Your task to perform on an android device: Go to network settings Image 0: 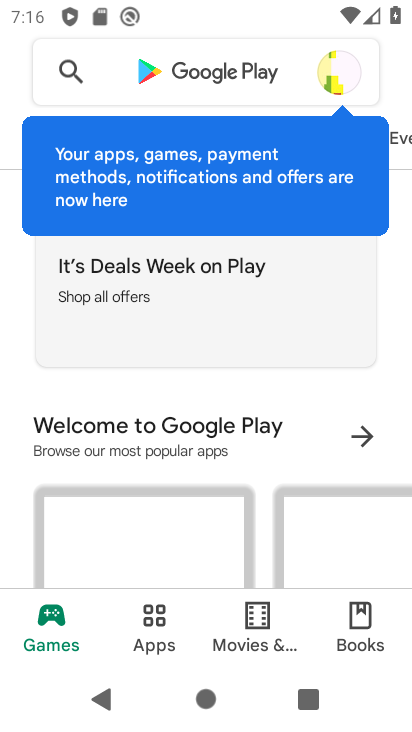
Step 0: press home button
Your task to perform on an android device: Go to network settings Image 1: 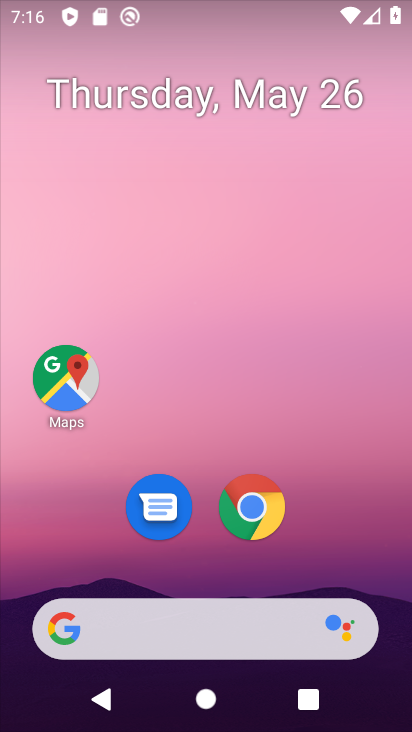
Step 1: drag from (222, 554) to (287, 2)
Your task to perform on an android device: Go to network settings Image 2: 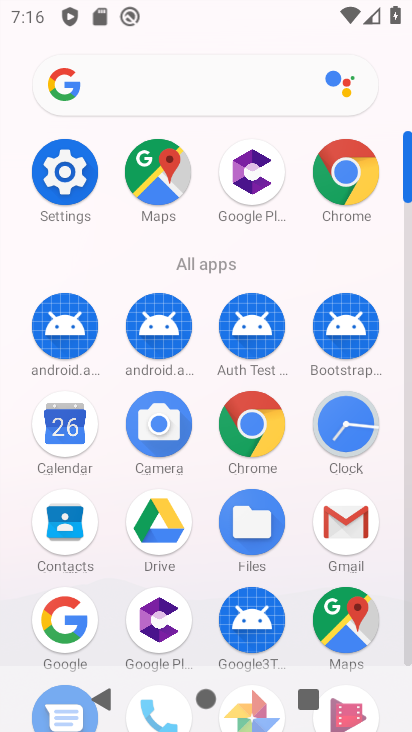
Step 2: click (67, 175)
Your task to perform on an android device: Go to network settings Image 3: 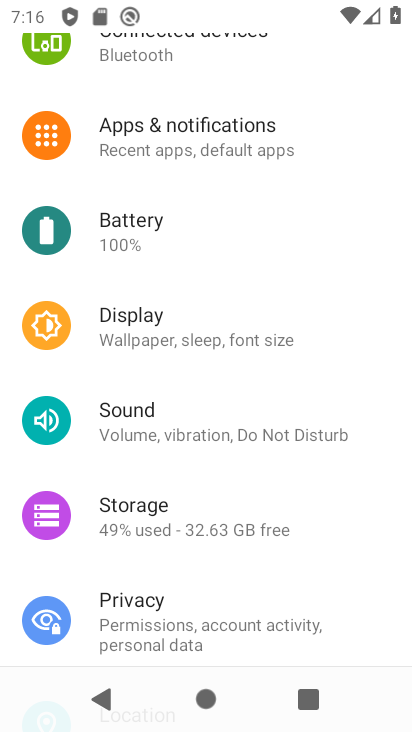
Step 3: drag from (174, 588) to (281, 234)
Your task to perform on an android device: Go to network settings Image 4: 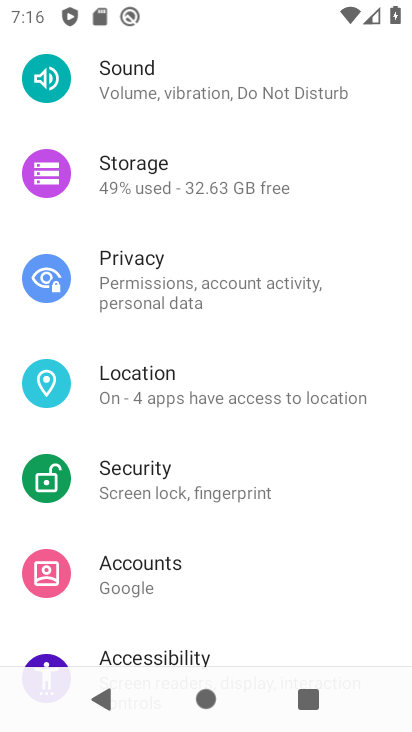
Step 4: drag from (229, 197) to (169, 695)
Your task to perform on an android device: Go to network settings Image 5: 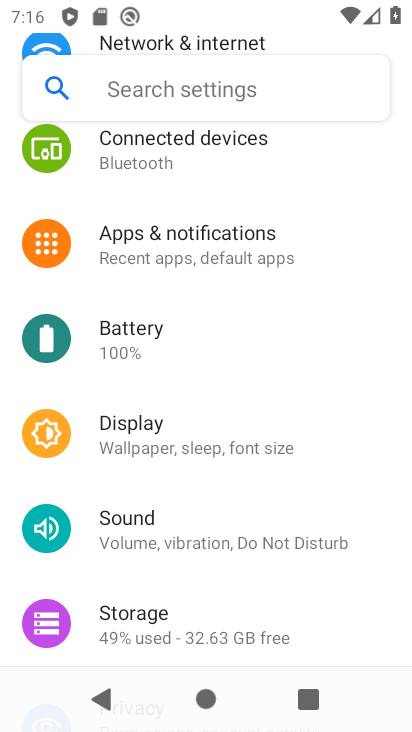
Step 5: drag from (217, 546) to (178, 730)
Your task to perform on an android device: Go to network settings Image 6: 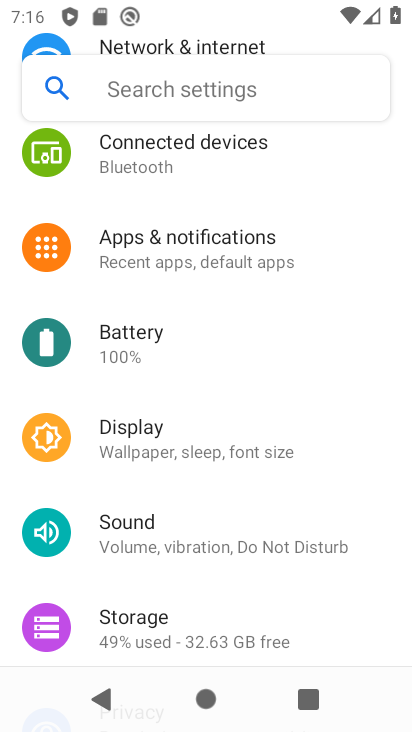
Step 6: drag from (181, 306) to (166, 643)
Your task to perform on an android device: Go to network settings Image 7: 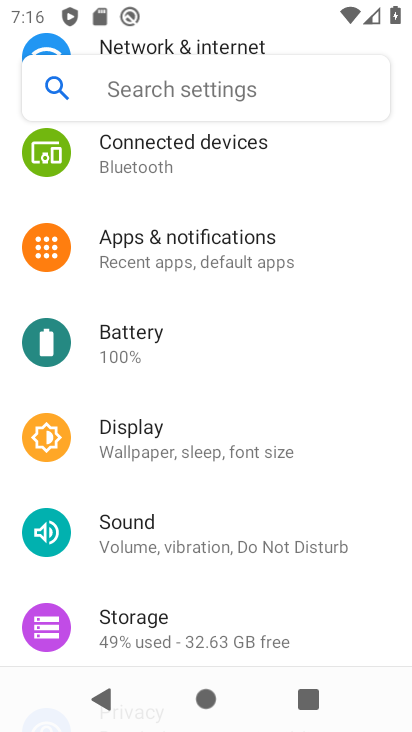
Step 7: drag from (197, 203) to (185, 476)
Your task to perform on an android device: Go to network settings Image 8: 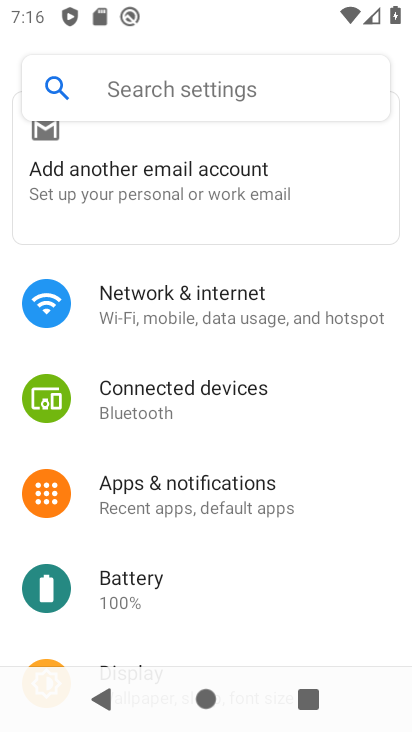
Step 8: click (159, 324)
Your task to perform on an android device: Go to network settings Image 9: 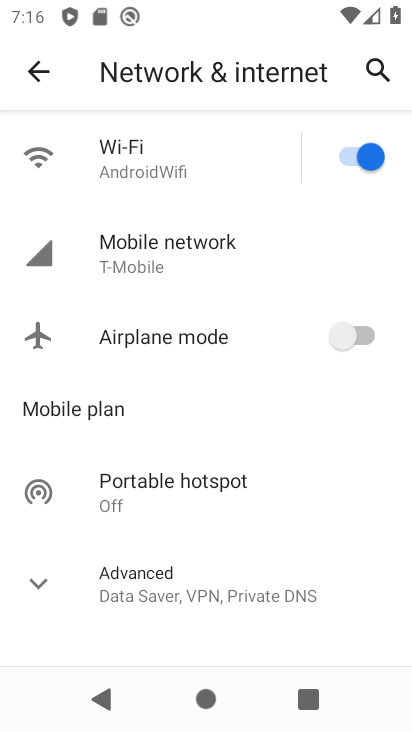
Step 9: task complete